Your task to perform on an android device: toggle wifi Image 0: 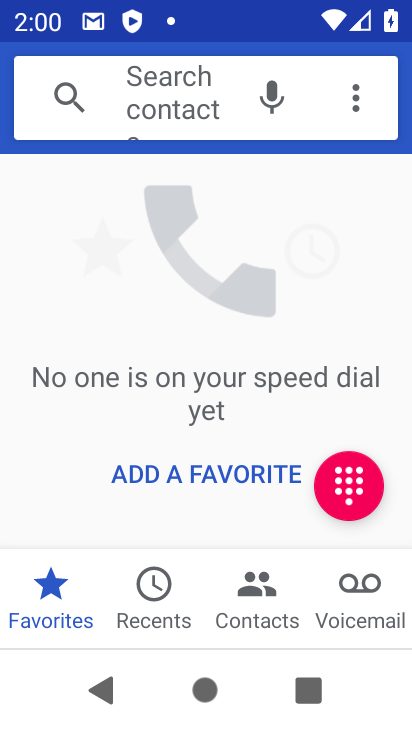
Step 0: press home button
Your task to perform on an android device: toggle wifi Image 1: 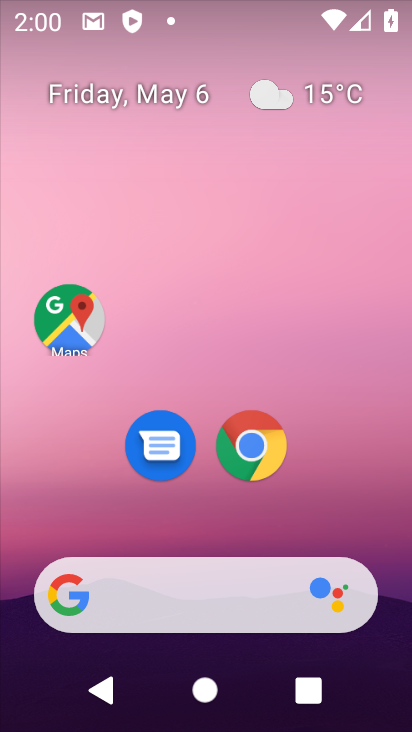
Step 1: drag from (300, 515) to (343, 59)
Your task to perform on an android device: toggle wifi Image 2: 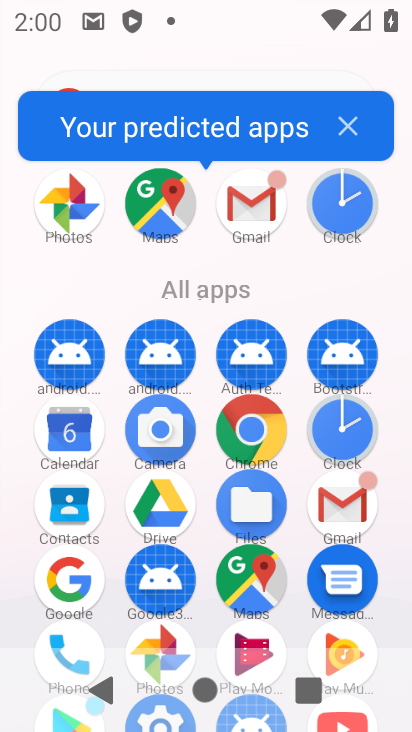
Step 2: drag from (292, 626) to (323, 349)
Your task to perform on an android device: toggle wifi Image 3: 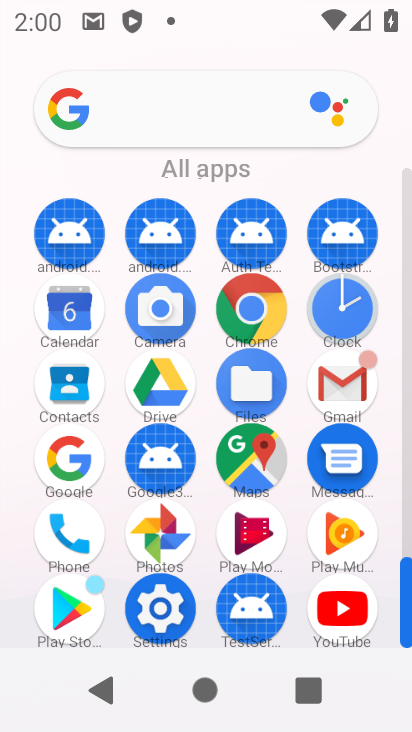
Step 3: click (171, 610)
Your task to perform on an android device: toggle wifi Image 4: 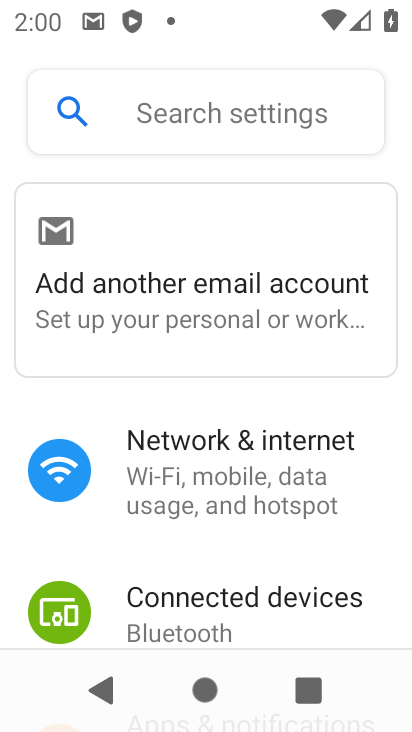
Step 4: click (294, 452)
Your task to perform on an android device: toggle wifi Image 5: 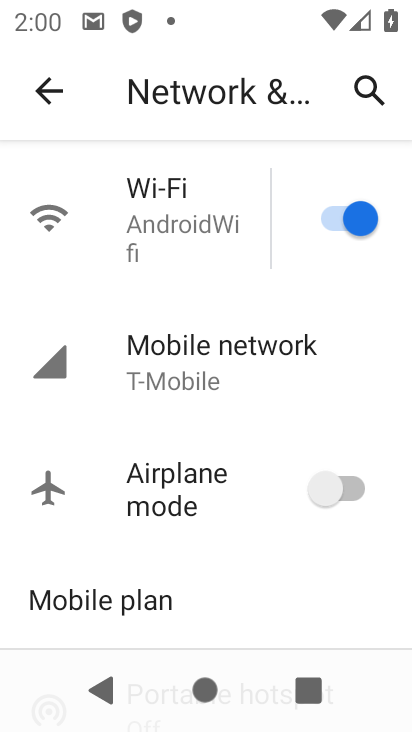
Step 5: click (329, 202)
Your task to perform on an android device: toggle wifi Image 6: 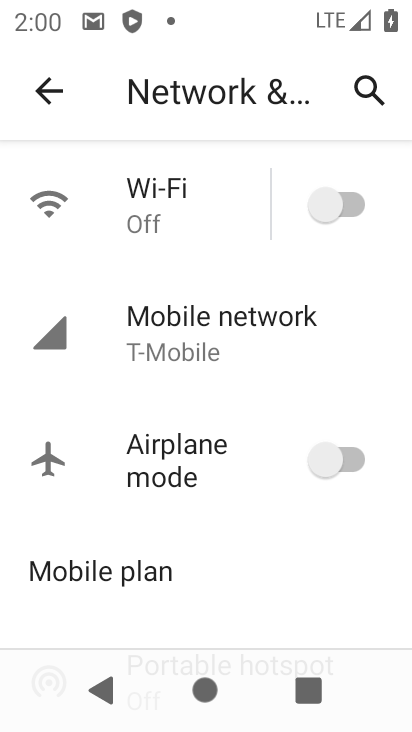
Step 6: task complete